Your task to perform on an android device: Go to Reddit.com Image 0: 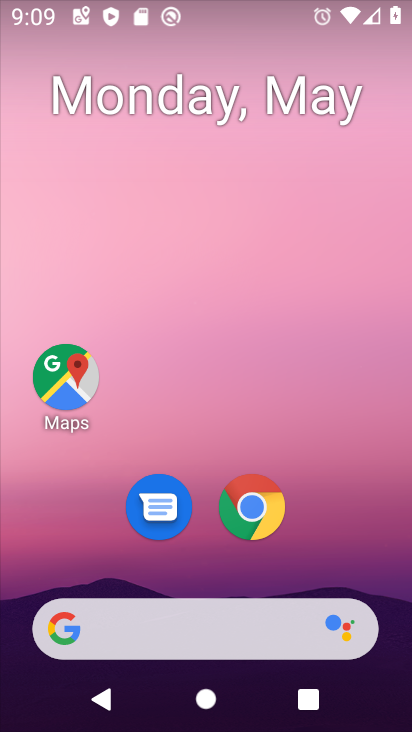
Step 0: click (265, 494)
Your task to perform on an android device: Go to Reddit.com Image 1: 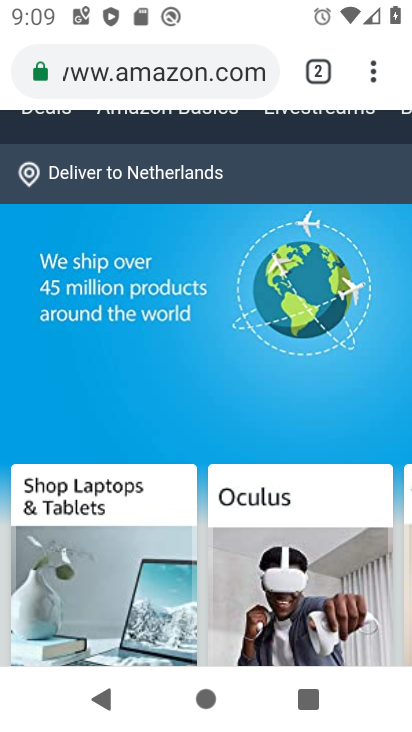
Step 1: click (187, 82)
Your task to perform on an android device: Go to Reddit.com Image 2: 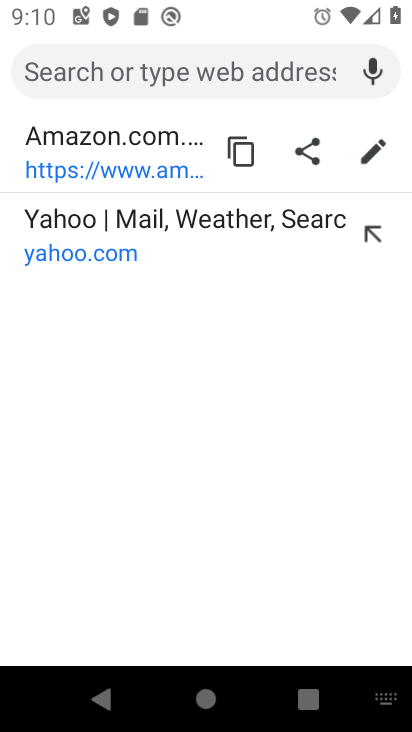
Step 2: type "Reddit.com"
Your task to perform on an android device: Go to Reddit.com Image 3: 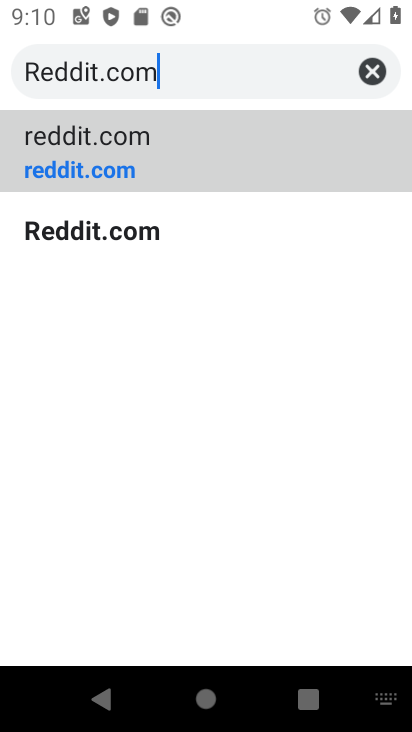
Step 3: click (140, 168)
Your task to perform on an android device: Go to Reddit.com Image 4: 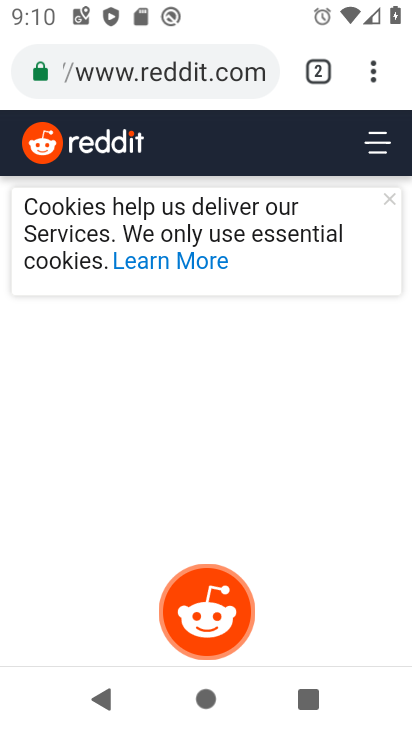
Step 4: task complete